Your task to perform on an android device: Open Chrome and go to settings Image 0: 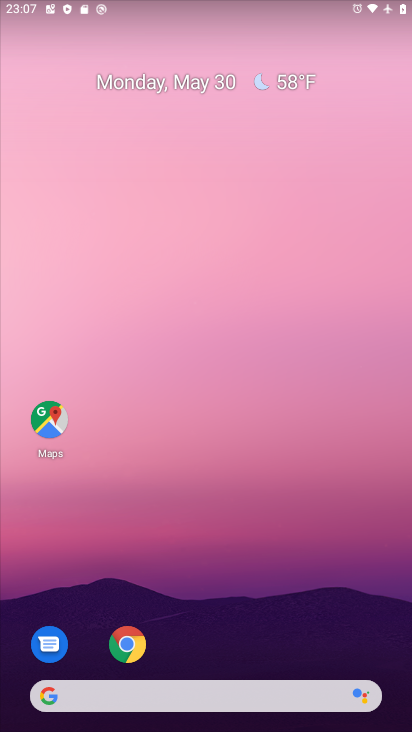
Step 0: click (128, 646)
Your task to perform on an android device: Open Chrome and go to settings Image 1: 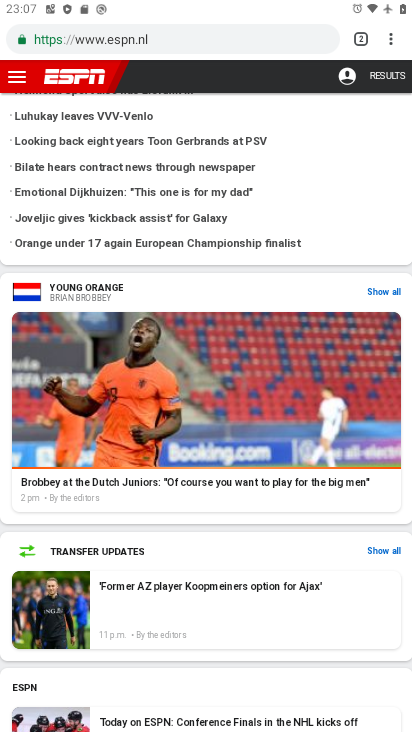
Step 1: click (388, 42)
Your task to perform on an android device: Open Chrome and go to settings Image 2: 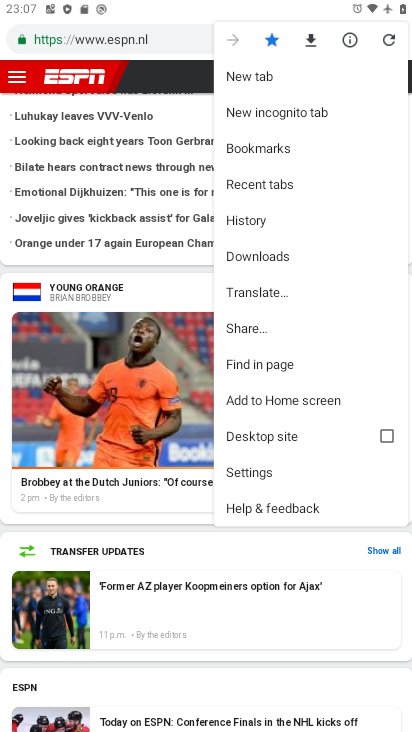
Step 2: click (257, 467)
Your task to perform on an android device: Open Chrome and go to settings Image 3: 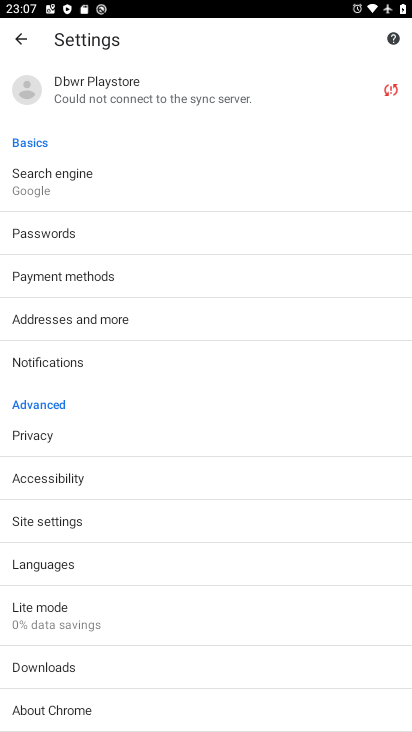
Step 3: task complete